Your task to perform on an android device: Open Chrome and go to settings Image 0: 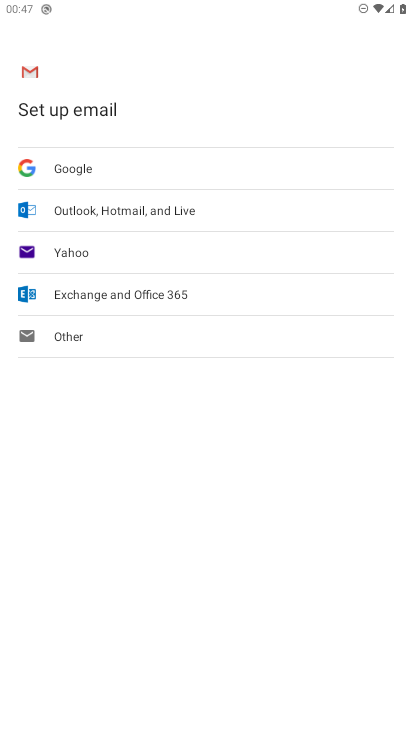
Step 0: press home button
Your task to perform on an android device: Open Chrome and go to settings Image 1: 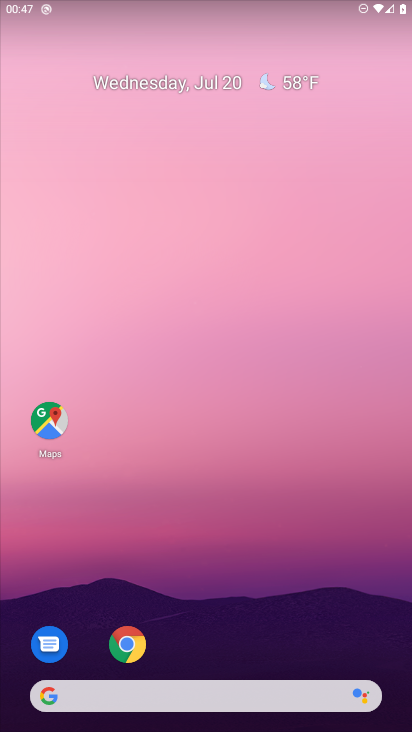
Step 1: drag from (140, 366) to (218, 21)
Your task to perform on an android device: Open Chrome and go to settings Image 2: 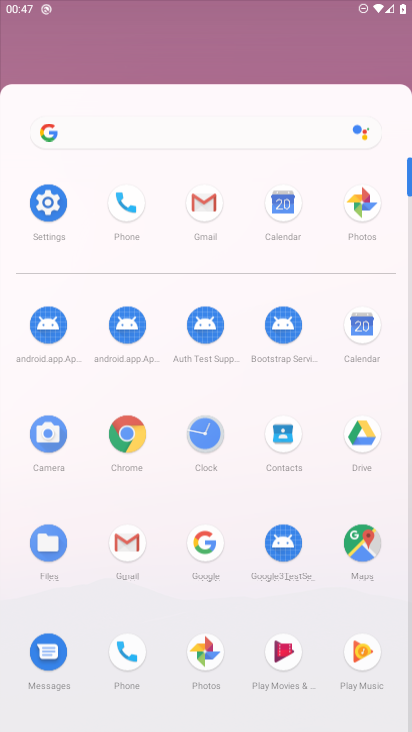
Step 2: click (218, 64)
Your task to perform on an android device: Open Chrome and go to settings Image 3: 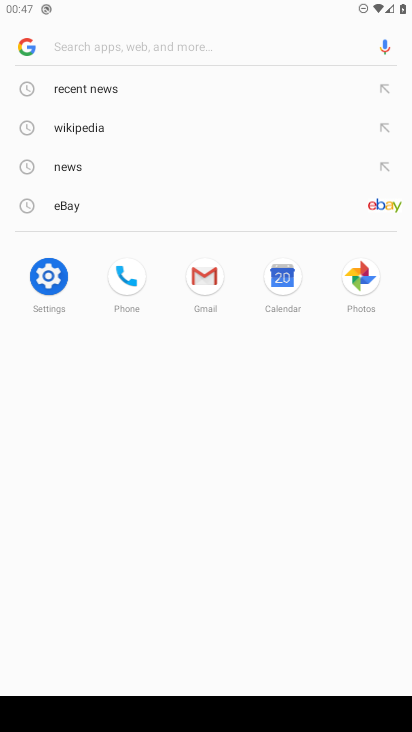
Step 3: press home button
Your task to perform on an android device: Open Chrome and go to settings Image 4: 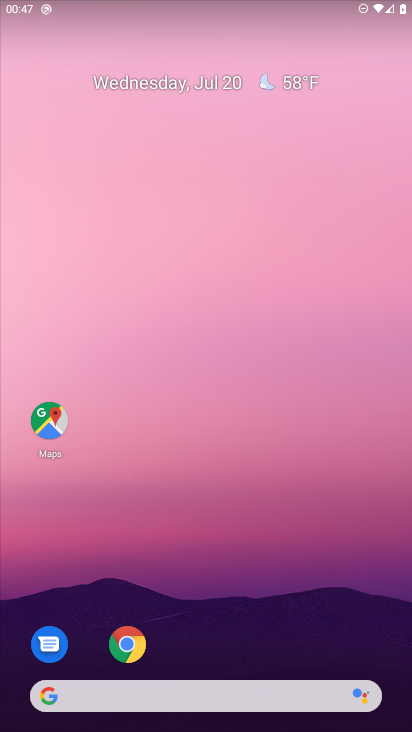
Step 4: click (132, 644)
Your task to perform on an android device: Open Chrome and go to settings Image 5: 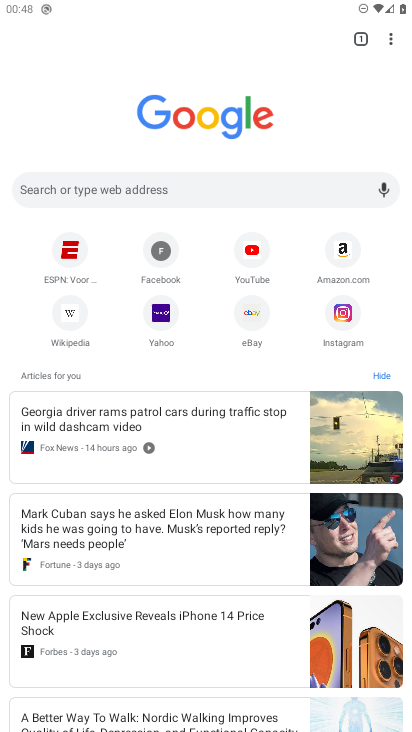
Step 5: click (392, 25)
Your task to perform on an android device: Open Chrome and go to settings Image 6: 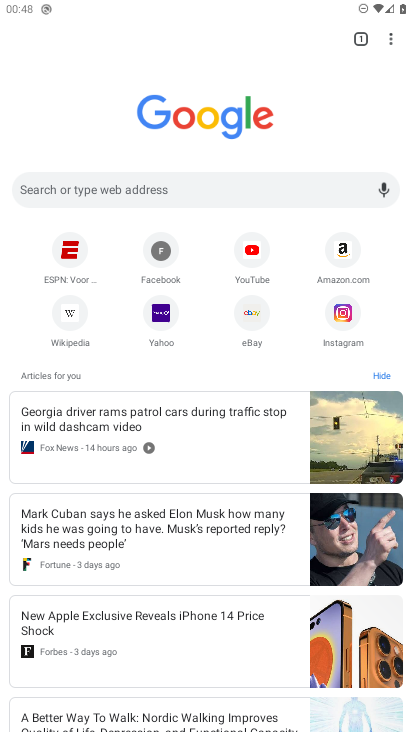
Step 6: click (385, 39)
Your task to perform on an android device: Open Chrome and go to settings Image 7: 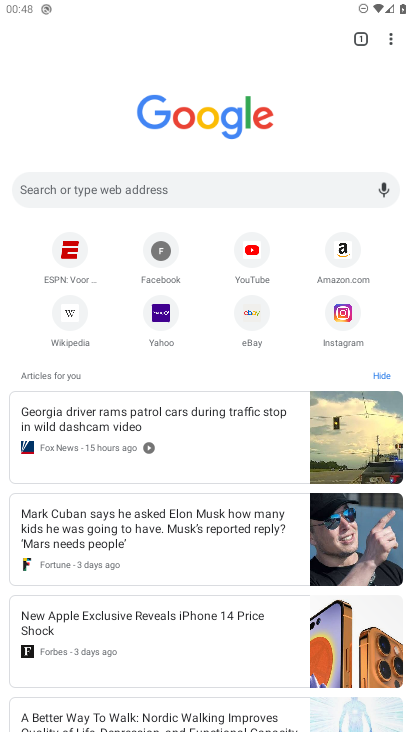
Step 7: task complete